Your task to perform on an android device: turn notification dots on Image 0: 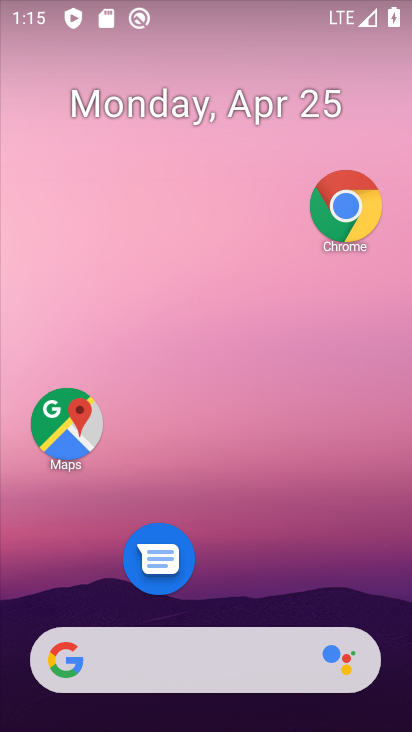
Step 0: drag from (221, 517) to (254, 176)
Your task to perform on an android device: turn notification dots on Image 1: 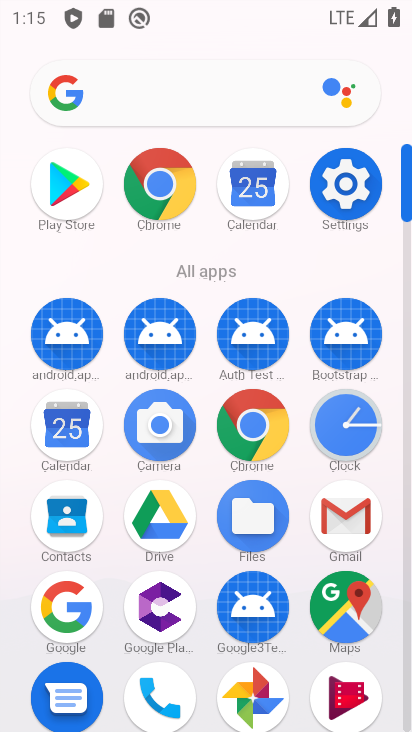
Step 1: click (356, 174)
Your task to perform on an android device: turn notification dots on Image 2: 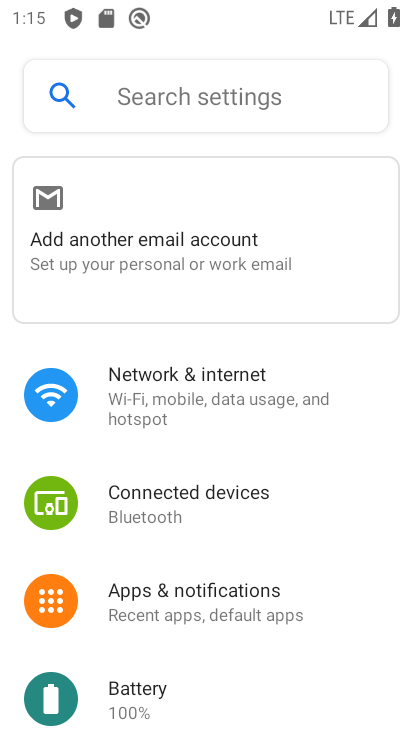
Step 2: click (223, 595)
Your task to perform on an android device: turn notification dots on Image 3: 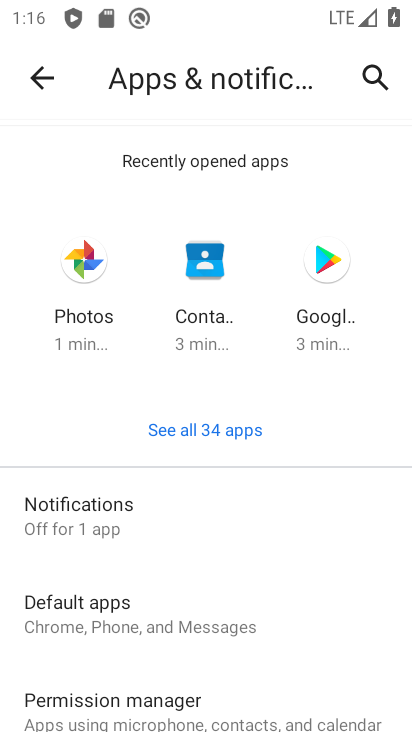
Step 3: click (133, 513)
Your task to perform on an android device: turn notification dots on Image 4: 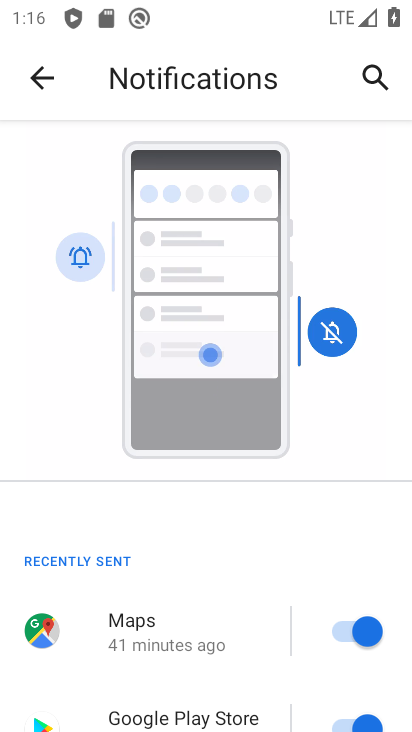
Step 4: drag from (159, 652) to (312, 76)
Your task to perform on an android device: turn notification dots on Image 5: 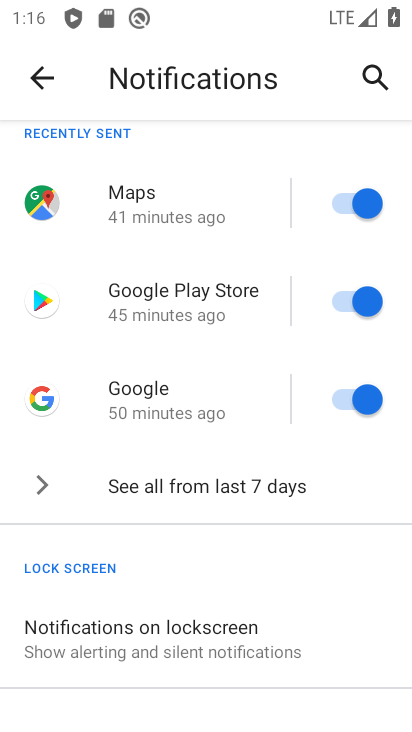
Step 5: drag from (153, 603) to (205, 216)
Your task to perform on an android device: turn notification dots on Image 6: 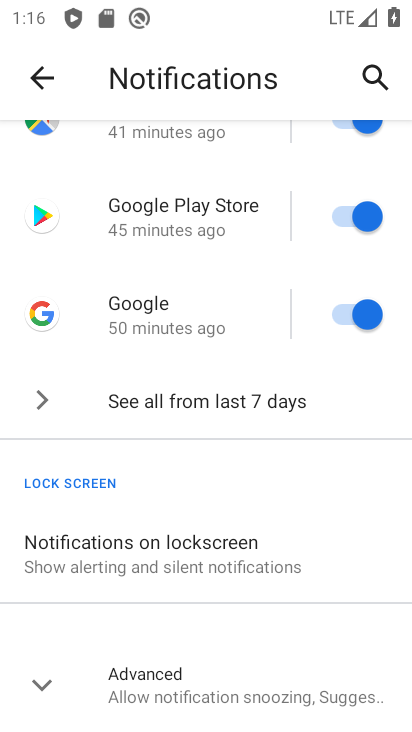
Step 6: click (208, 681)
Your task to perform on an android device: turn notification dots on Image 7: 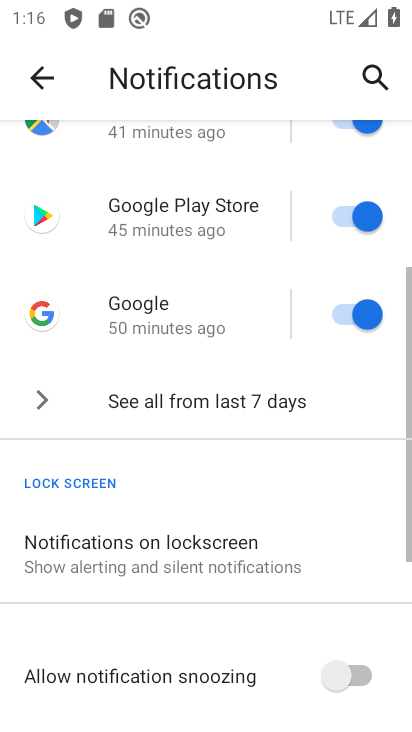
Step 7: drag from (186, 692) to (230, 284)
Your task to perform on an android device: turn notification dots on Image 8: 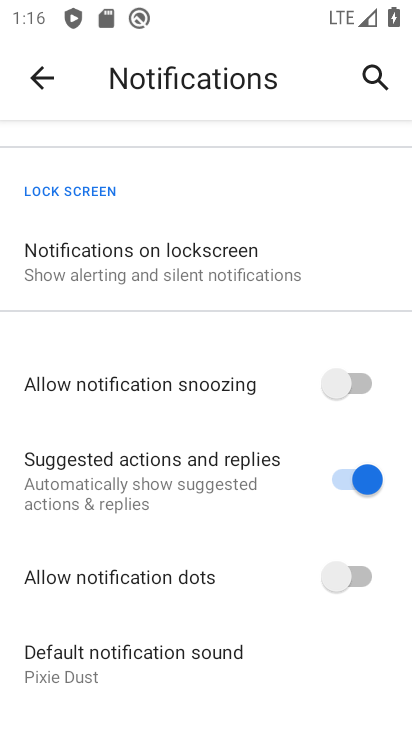
Step 8: click (353, 576)
Your task to perform on an android device: turn notification dots on Image 9: 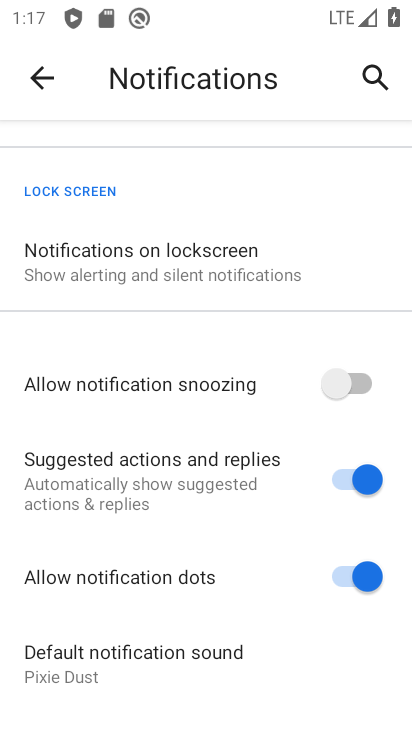
Step 9: task complete